Your task to perform on an android device: show emergency info Image 0: 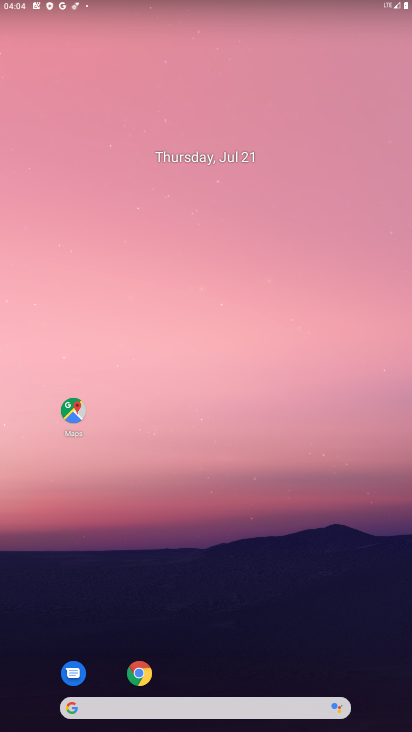
Step 0: drag from (246, 526) to (232, 53)
Your task to perform on an android device: show emergency info Image 1: 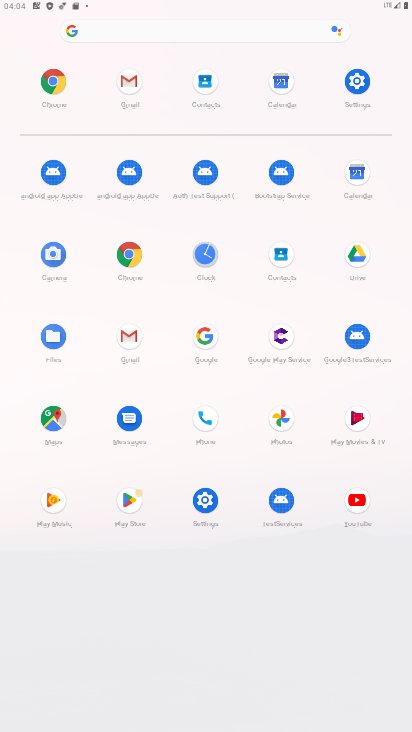
Step 1: click (354, 72)
Your task to perform on an android device: show emergency info Image 2: 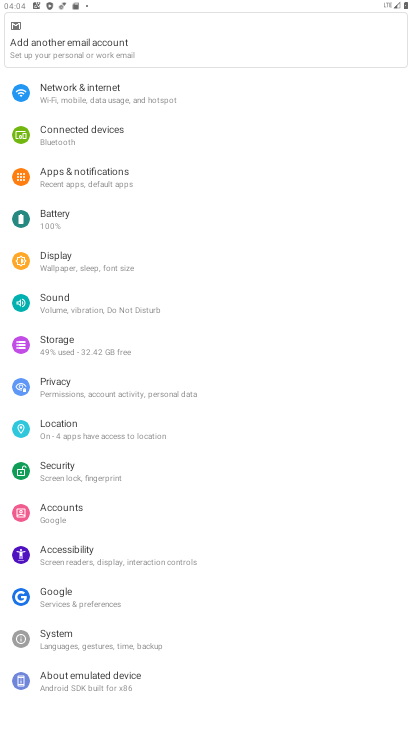
Step 2: drag from (102, 569) to (189, 232)
Your task to perform on an android device: show emergency info Image 3: 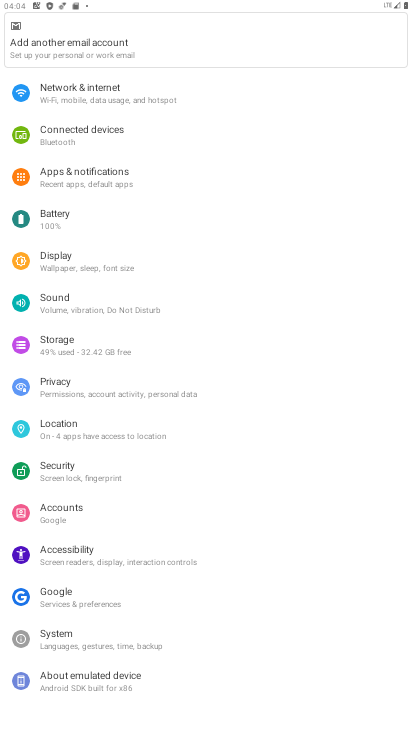
Step 3: drag from (103, 563) to (145, 341)
Your task to perform on an android device: show emergency info Image 4: 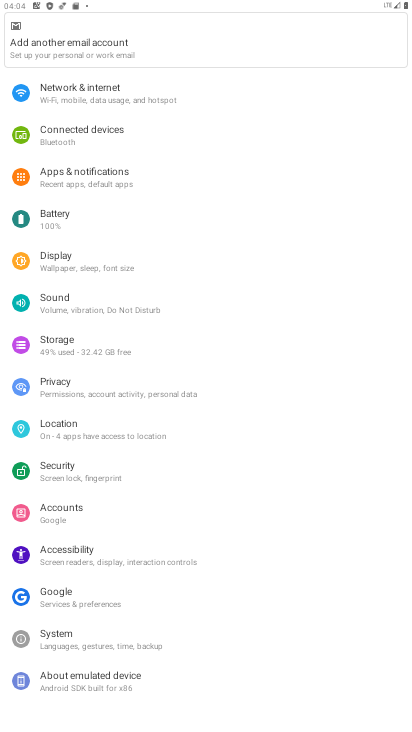
Step 4: click (91, 678)
Your task to perform on an android device: show emergency info Image 5: 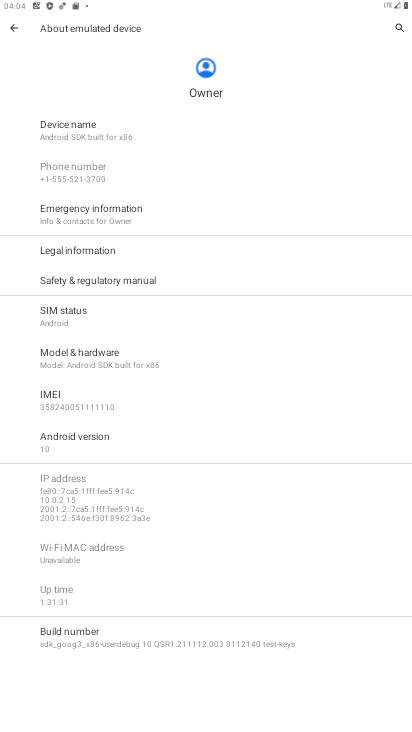
Step 5: click (96, 211)
Your task to perform on an android device: show emergency info Image 6: 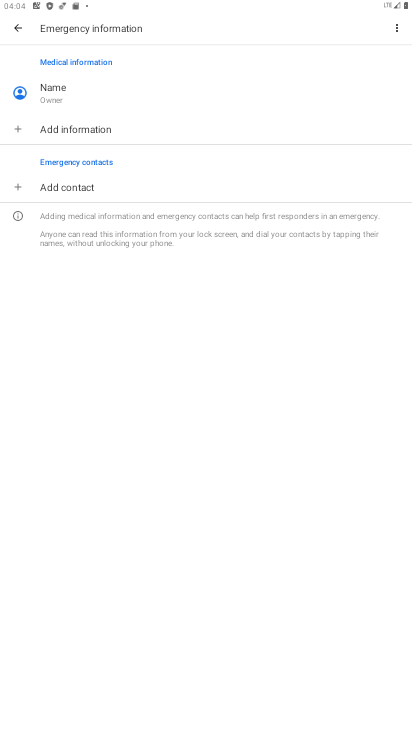
Step 6: task complete